Your task to perform on an android device: turn vacation reply on in the gmail app Image 0: 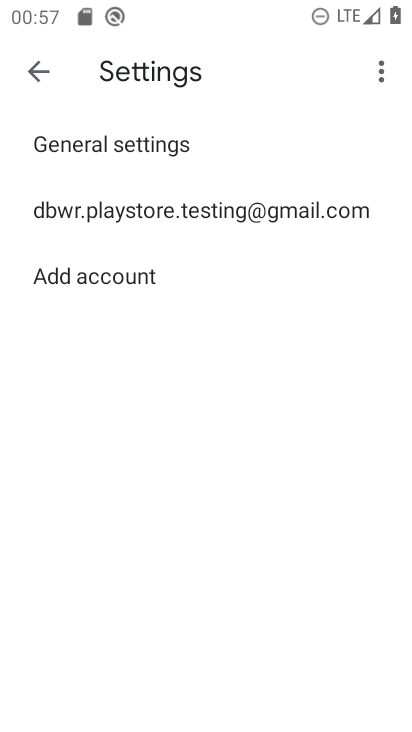
Step 0: press home button
Your task to perform on an android device: turn vacation reply on in the gmail app Image 1: 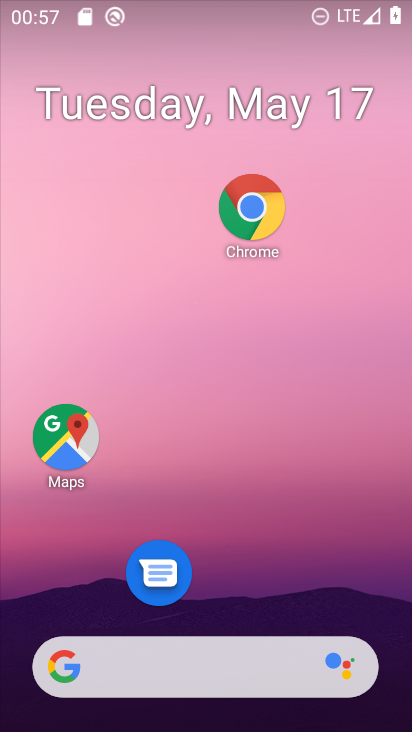
Step 1: drag from (334, 639) to (359, 51)
Your task to perform on an android device: turn vacation reply on in the gmail app Image 2: 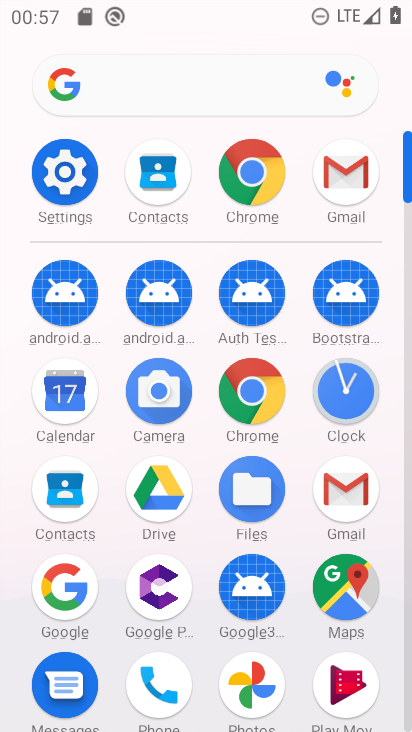
Step 2: click (334, 483)
Your task to perform on an android device: turn vacation reply on in the gmail app Image 3: 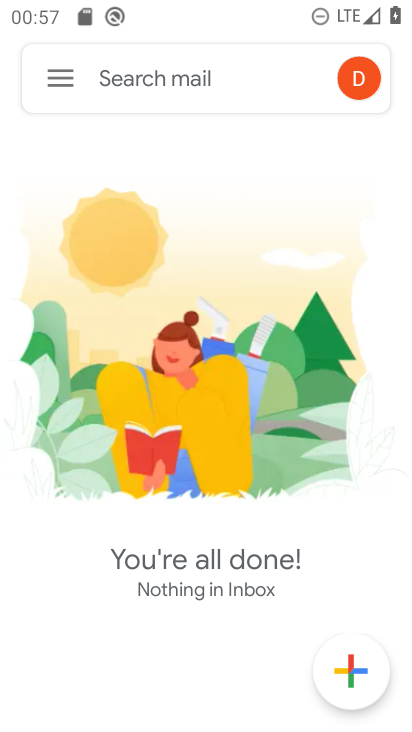
Step 3: click (61, 76)
Your task to perform on an android device: turn vacation reply on in the gmail app Image 4: 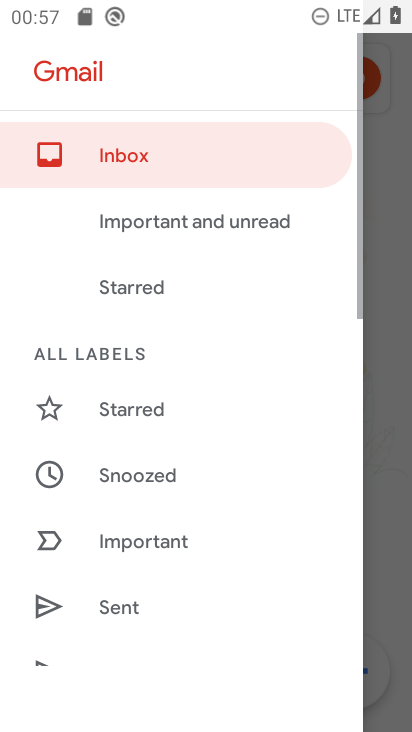
Step 4: drag from (240, 565) to (265, 46)
Your task to perform on an android device: turn vacation reply on in the gmail app Image 5: 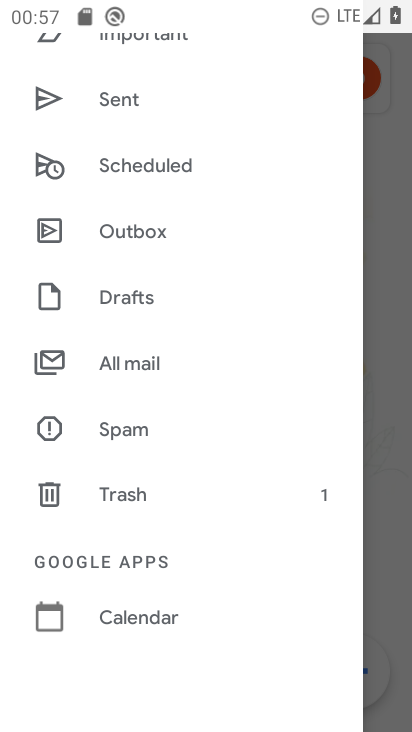
Step 5: drag from (170, 561) to (228, 85)
Your task to perform on an android device: turn vacation reply on in the gmail app Image 6: 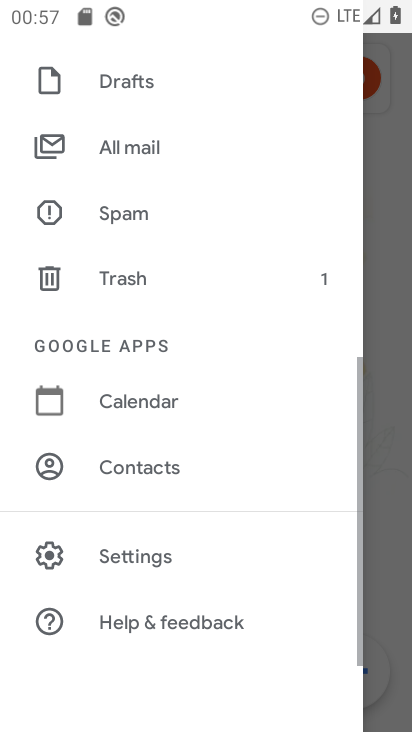
Step 6: click (148, 541)
Your task to perform on an android device: turn vacation reply on in the gmail app Image 7: 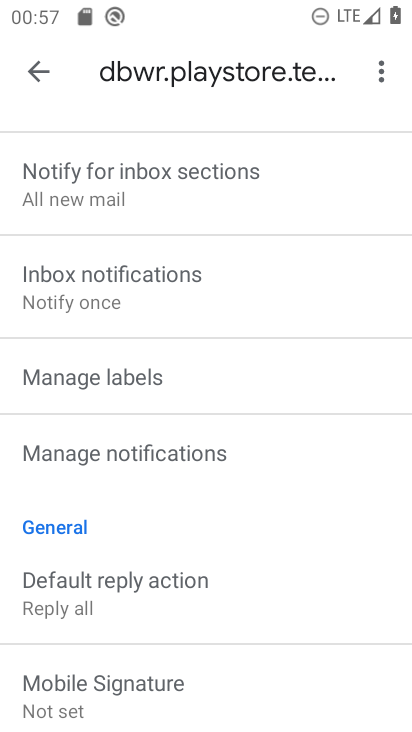
Step 7: drag from (204, 652) to (297, 25)
Your task to perform on an android device: turn vacation reply on in the gmail app Image 8: 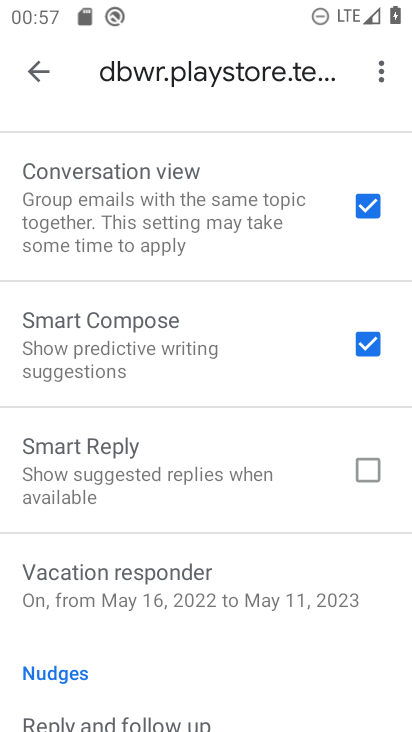
Step 8: click (173, 563)
Your task to perform on an android device: turn vacation reply on in the gmail app Image 9: 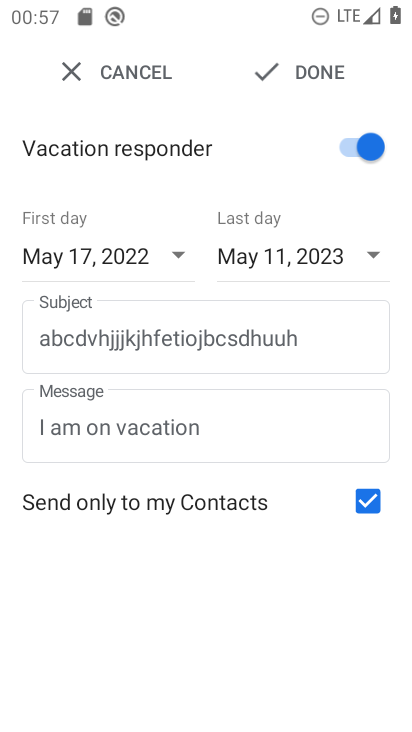
Step 9: task complete